Your task to perform on an android device: turn off location history Image 0: 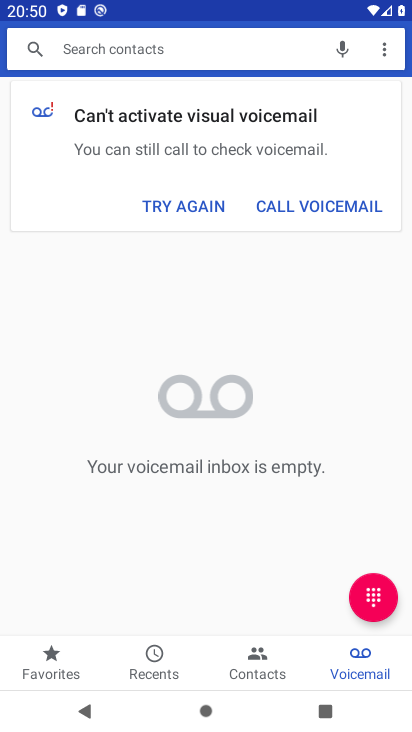
Step 0: press home button
Your task to perform on an android device: turn off location history Image 1: 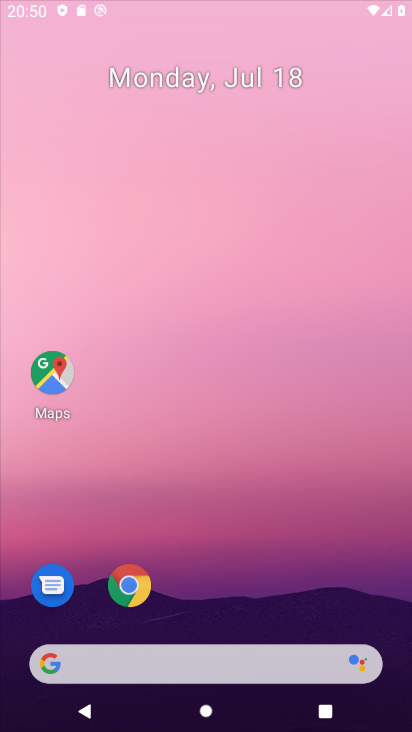
Step 1: drag from (274, 619) to (276, 74)
Your task to perform on an android device: turn off location history Image 2: 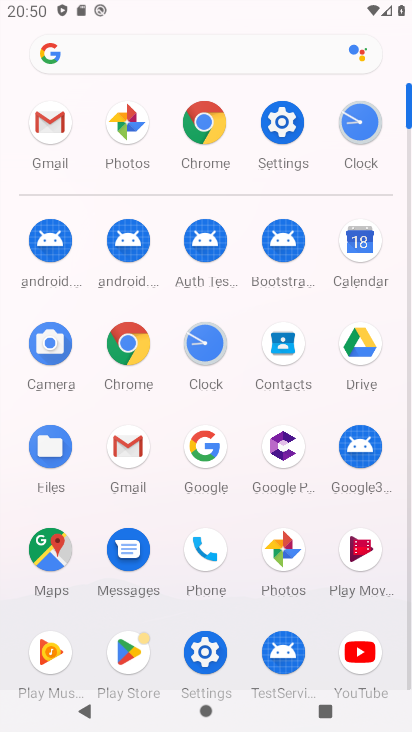
Step 2: click (68, 545)
Your task to perform on an android device: turn off location history Image 3: 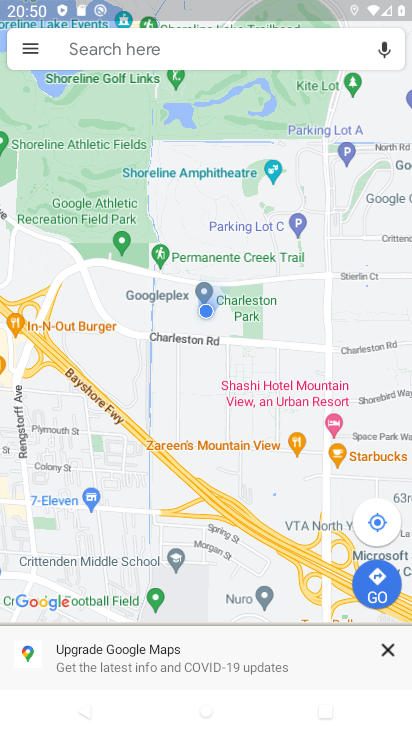
Step 3: click (37, 57)
Your task to perform on an android device: turn off location history Image 4: 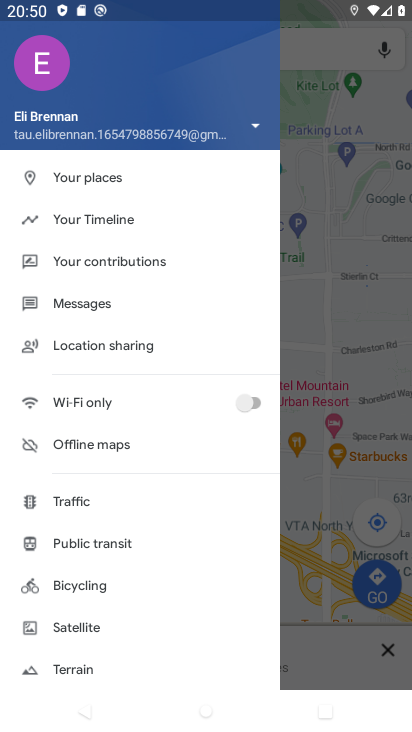
Step 4: click (110, 218)
Your task to perform on an android device: turn off location history Image 5: 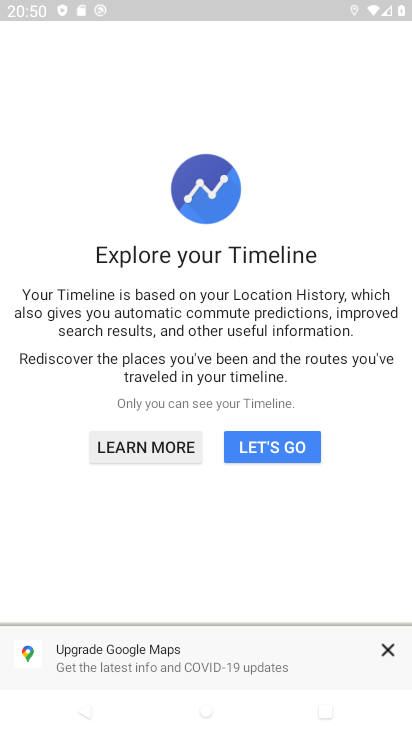
Step 5: click (264, 455)
Your task to perform on an android device: turn off location history Image 6: 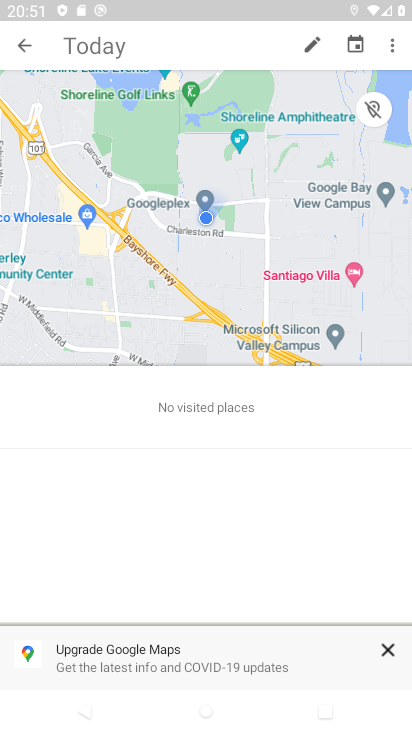
Step 6: click (390, 52)
Your task to perform on an android device: turn off location history Image 7: 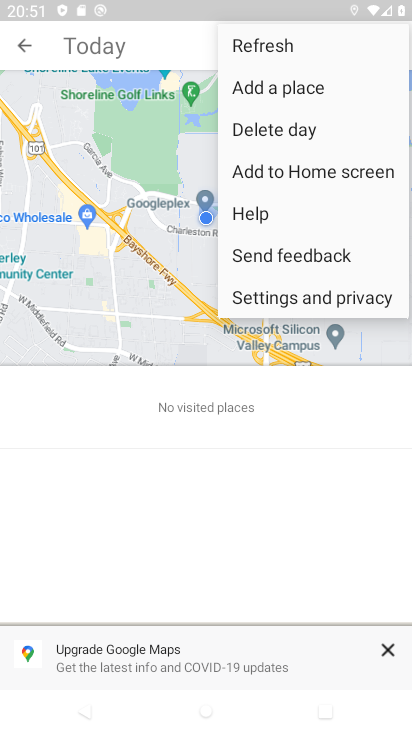
Step 7: click (306, 305)
Your task to perform on an android device: turn off location history Image 8: 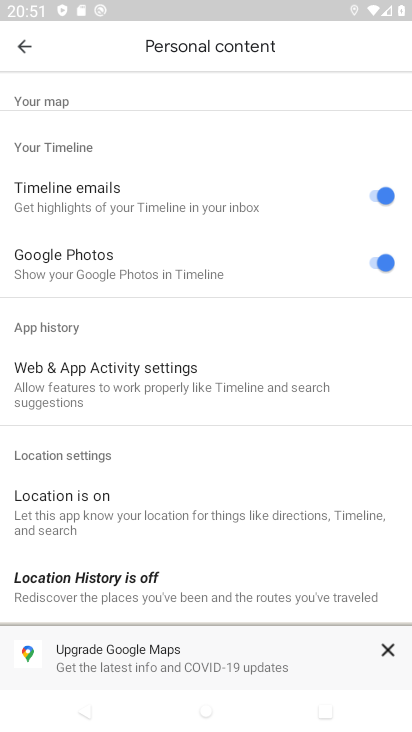
Step 8: click (68, 575)
Your task to perform on an android device: turn off location history Image 9: 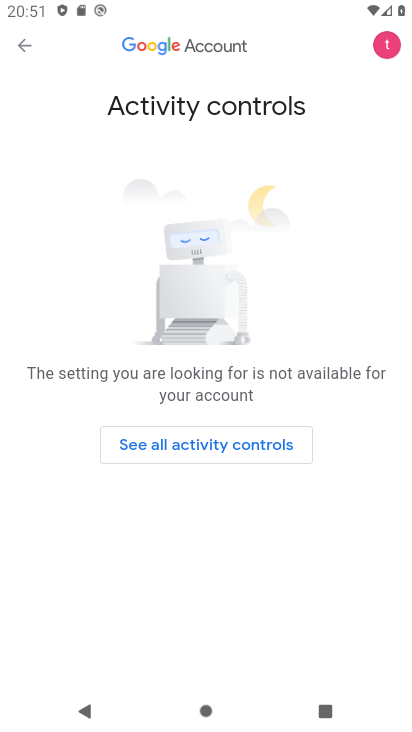
Step 9: click (214, 454)
Your task to perform on an android device: turn off location history Image 10: 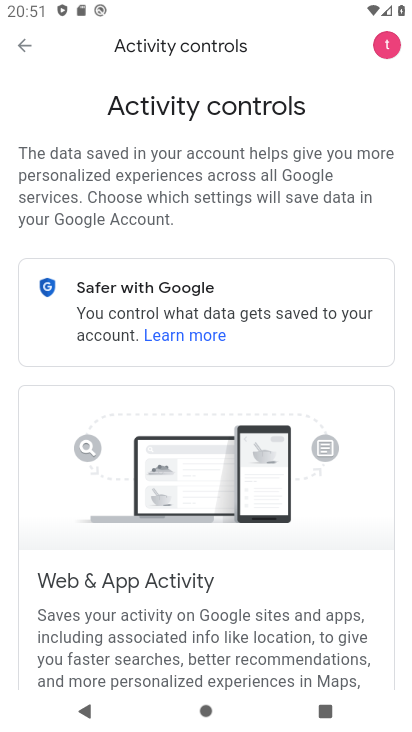
Step 10: task complete